Your task to perform on an android device: choose inbox layout in the gmail app Image 0: 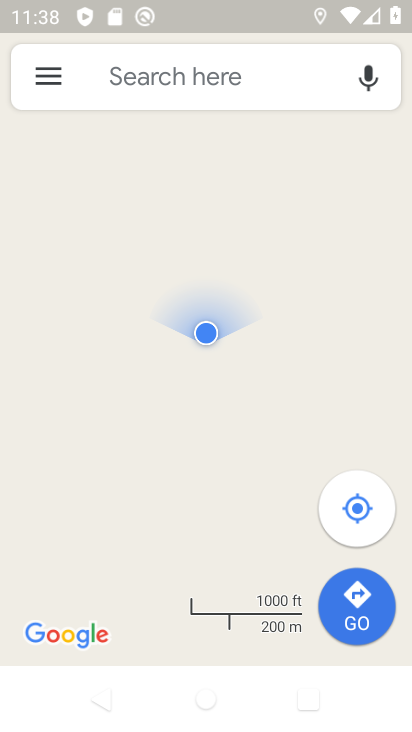
Step 0: press home button
Your task to perform on an android device: choose inbox layout in the gmail app Image 1: 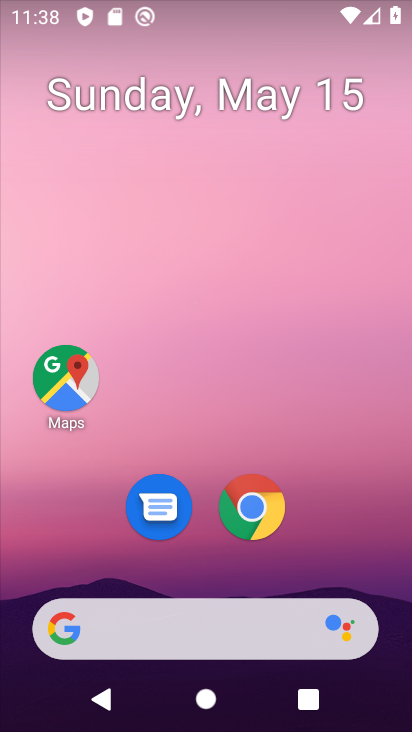
Step 1: drag from (327, 547) to (302, 59)
Your task to perform on an android device: choose inbox layout in the gmail app Image 2: 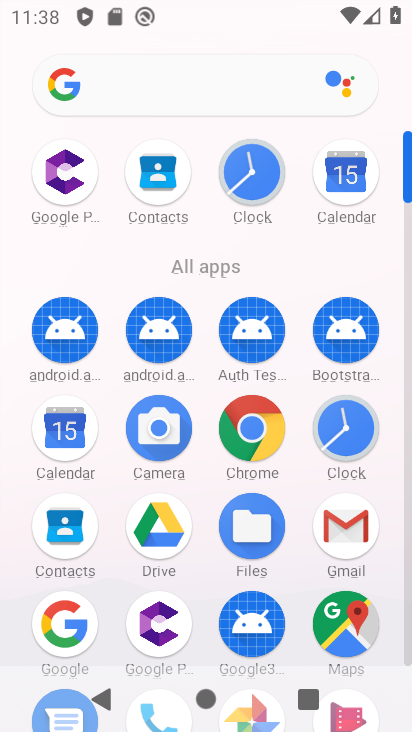
Step 2: click (348, 524)
Your task to perform on an android device: choose inbox layout in the gmail app Image 3: 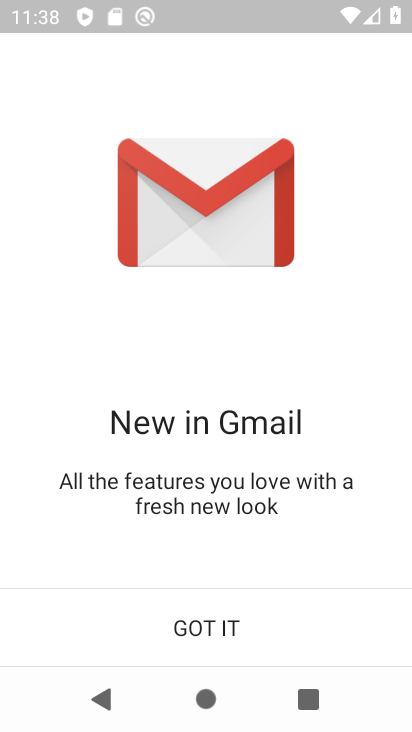
Step 3: click (207, 627)
Your task to perform on an android device: choose inbox layout in the gmail app Image 4: 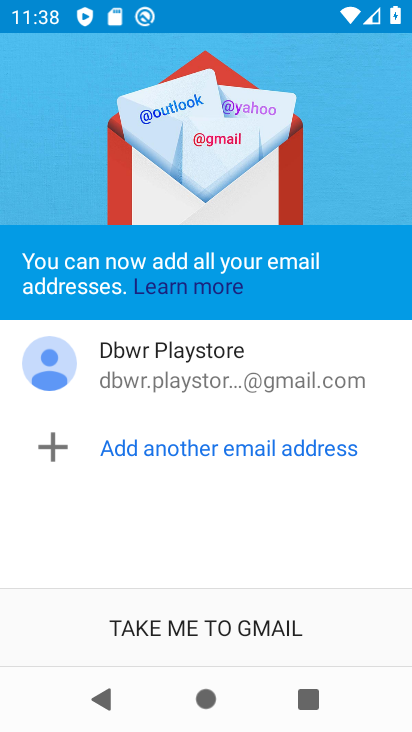
Step 4: click (139, 615)
Your task to perform on an android device: choose inbox layout in the gmail app Image 5: 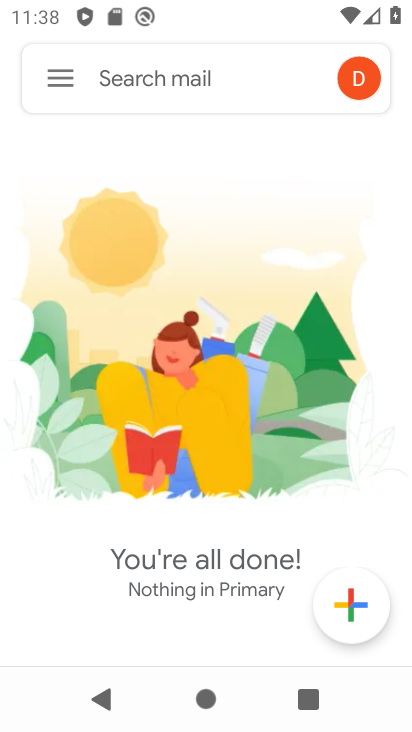
Step 5: click (62, 79)
Your task to perform on an android device: choose inbox layout in the gmail app Image 6: 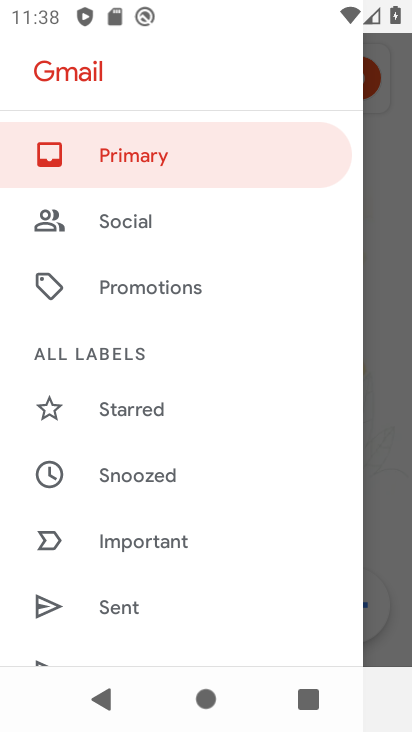
Step 6: drag from (162, 596) to (136, 161)
Your task to perform on an android device: choose inbox layout in the gmail app Image 7: 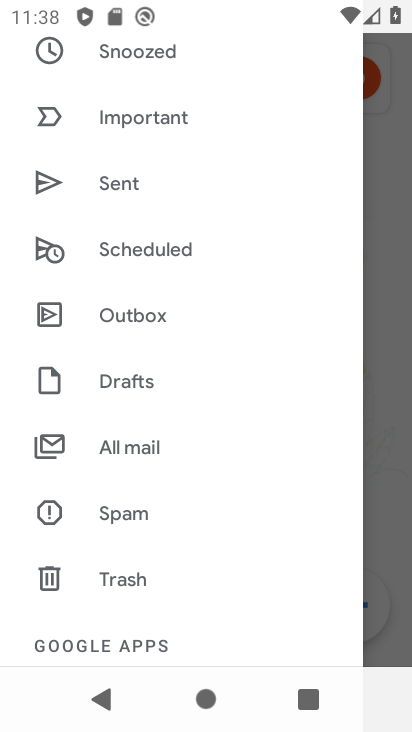
Step 7: drag from (126, 601) to (107, 291)
Your task to perform on an android device: choose inbox layout in the gmail app Image 8: 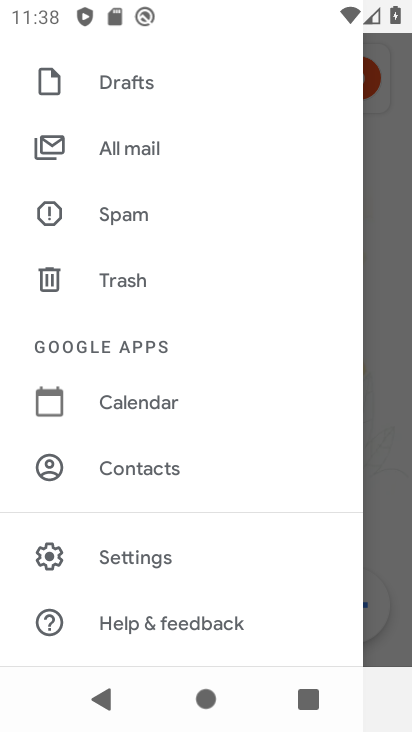
Step 8: click (158, 563)
Your task to perform on an android device: choose inbox layout in the gmail app Image 9: 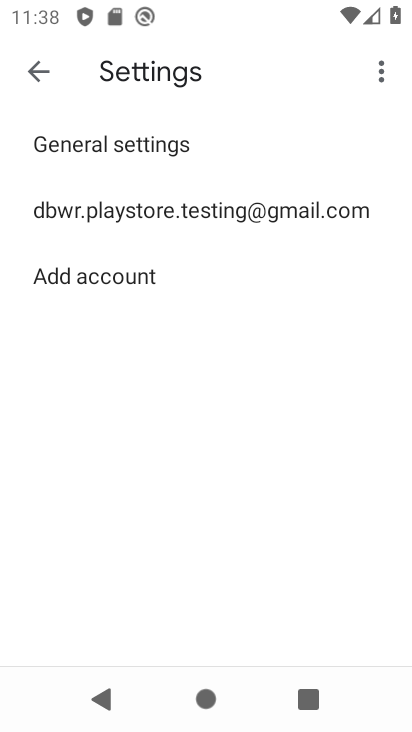
Step 9: click (181, 217)
Your task to perform on an android device: choose inbox layout in the gmail app Image 10: 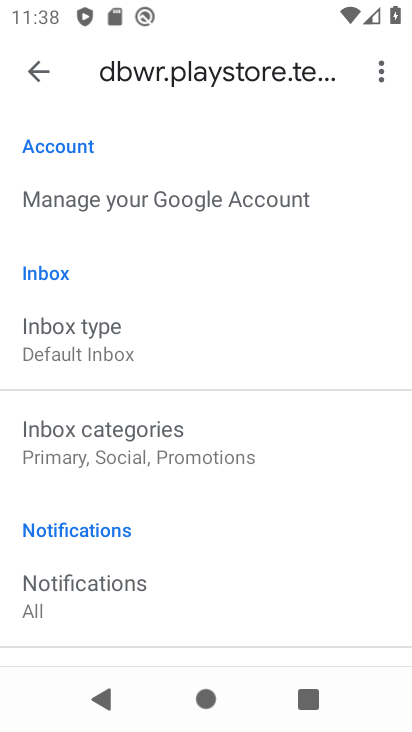
Step 10: click (139, 339)
Your task to perform on an android device: choose inbox layout in the gmail app Image 11: 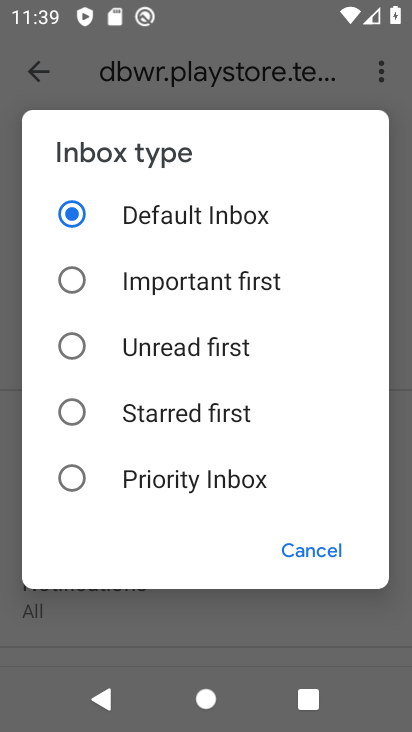
Step 11: click (156, 338)
Your task to perform on an android device: choose inbox layout in the gmail app Image 12: 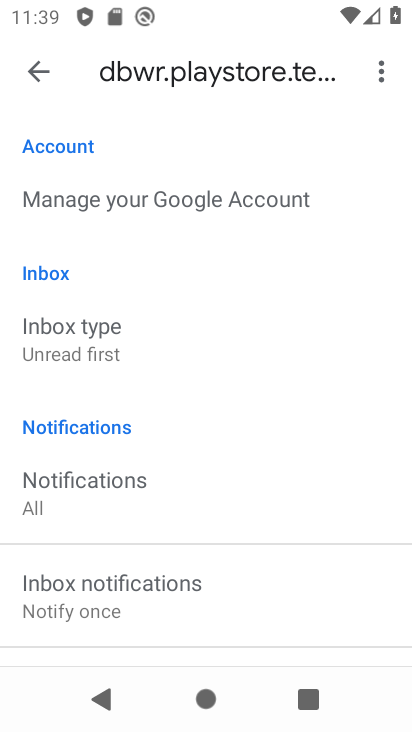
Step 12: task complete